Your task to perform on an android device: Open the stopwatch Image 0: 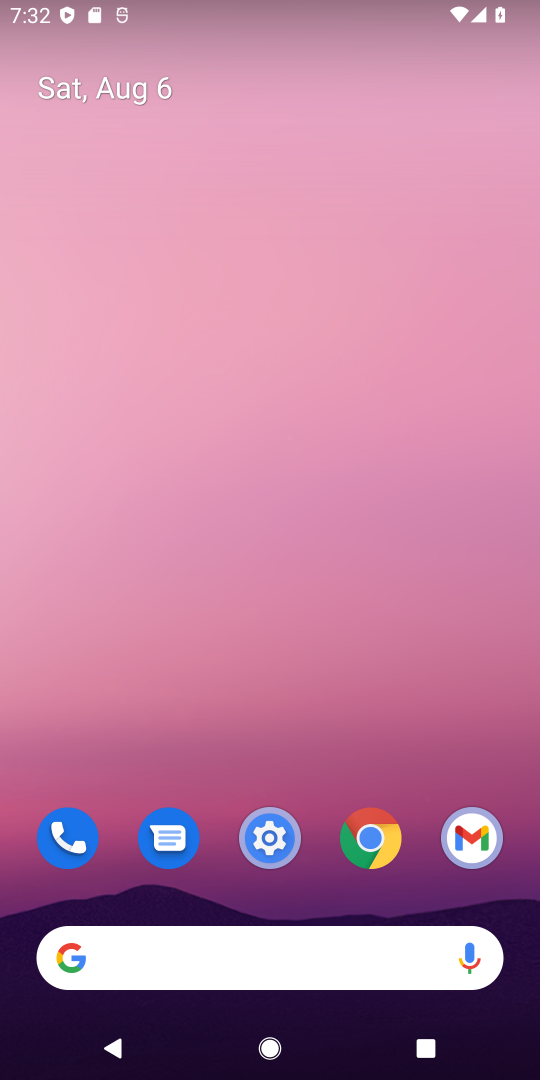
Step 0: drag from (192, 770) to (306, 13)
Your task to perform on an android device: Open the stopwatch Image 1: 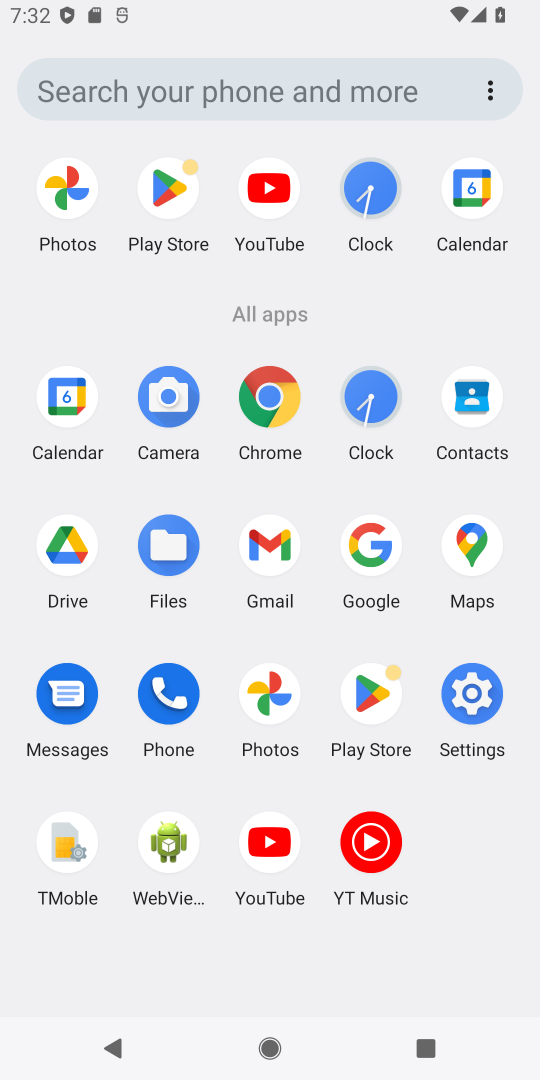
Step 1: click (363, 172)
Your task to perform on an android device: Open the stopwatch Image 2: 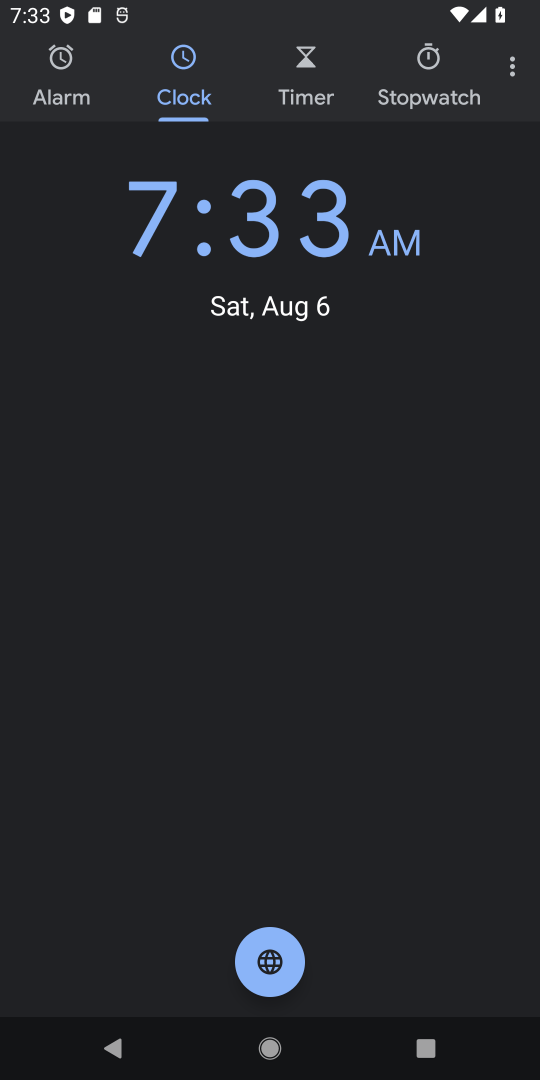
Step 2: click (413, 105)
Your task to perform on an android device: Open the stopwatch Image 3: 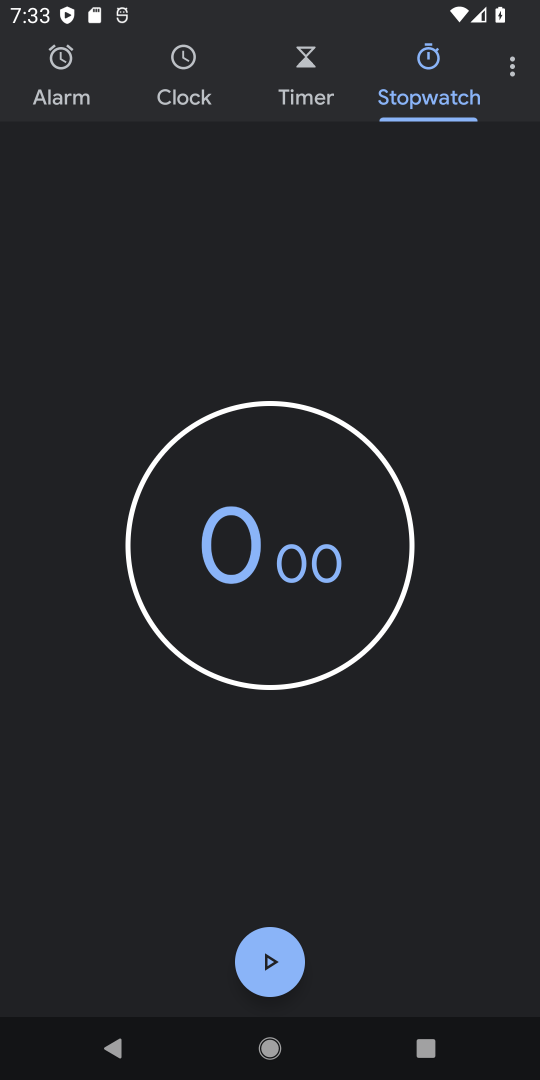
Step 3: task complete